Your task to perform on an android device: Open settings on Google Maps Image 0: 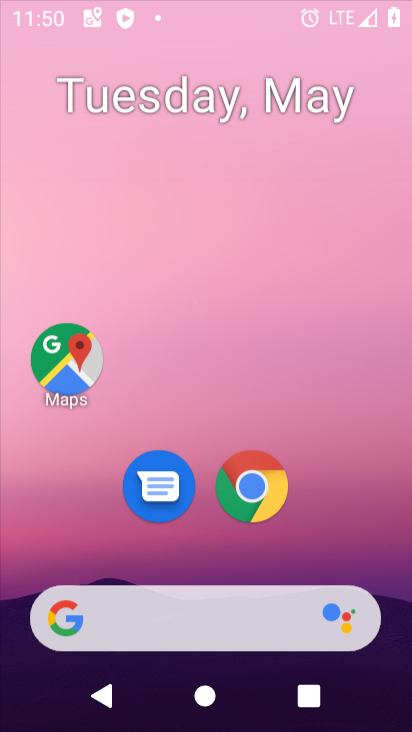
Step 0: click (233, 142)
Your task to perform on an android device: Open settings on Google Maps Image 1: 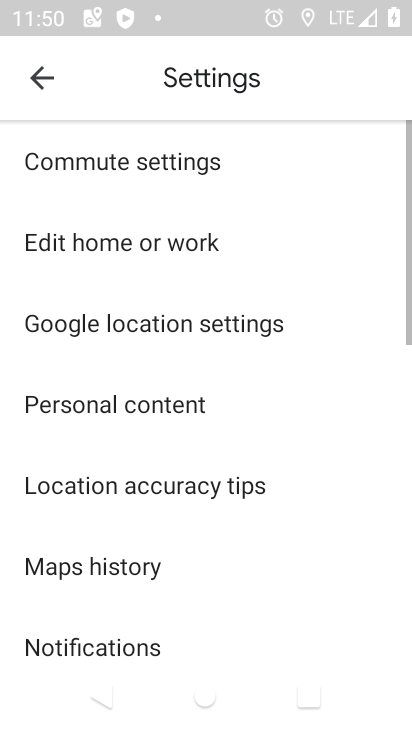
Step 1: drag from (194, 619) to (261, 186)
Your task to perform on an android device: Open settings on Google Maps Image 2: 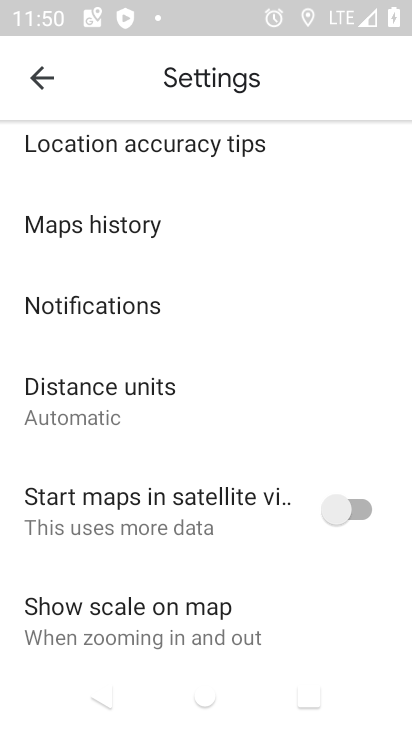
Step 2: click (35, 78)
Your task to perform on an android device: Open settings on Google Maps Image 3: 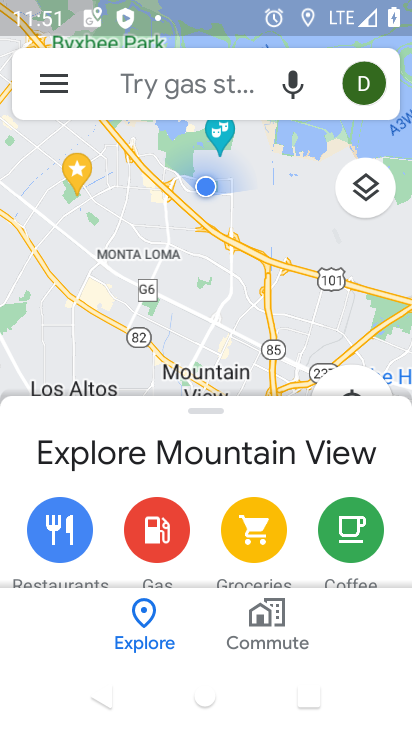
Step 3: click (46, 98)
Your task to perform on an android device: Open settings on Google Maps Image 4: 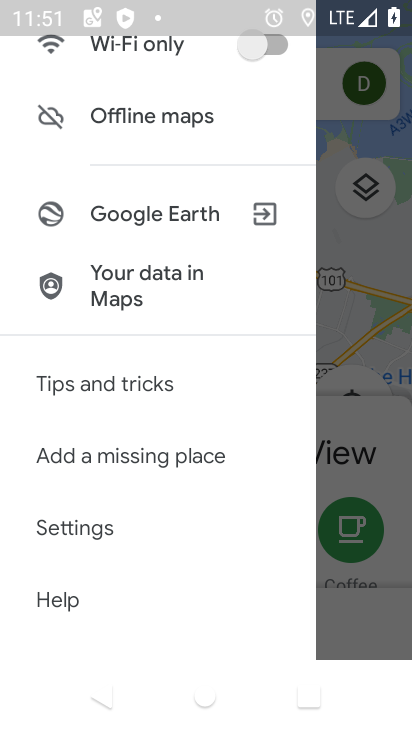
Step 4: click (125, 527)
Your task to perform on an android device: Open settings on Google Maps Image 5: 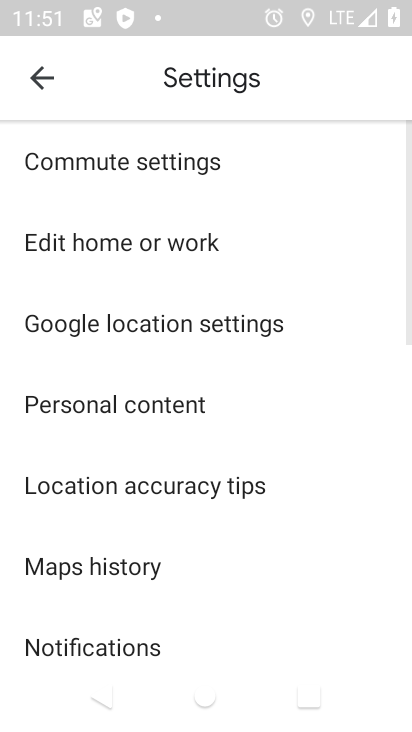
Step 5: task complete